Your task to perform on an android device: Open eBay Image 0: 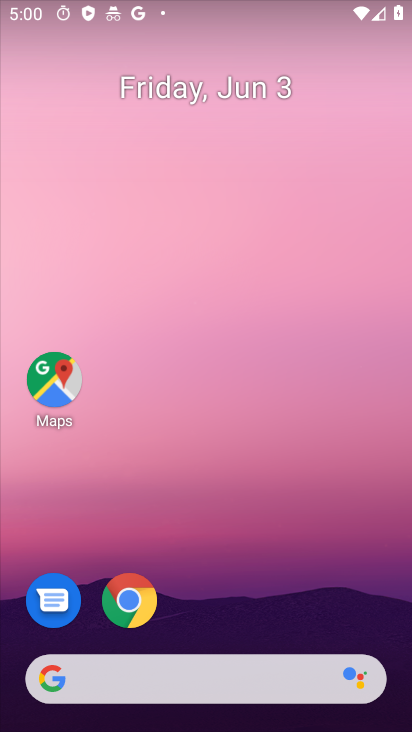
Step 0: click (133, 606)
Your task to perform on an android device: Open eBay Image 1: 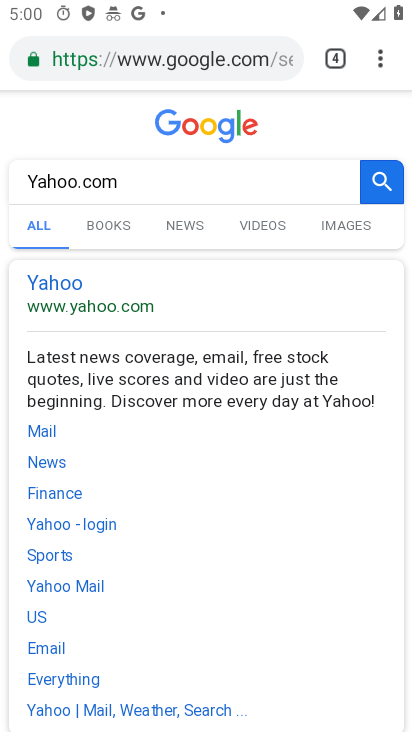
Step 1: click (295, 51)
Your task to perform on an android device: Open eBay Image 2: 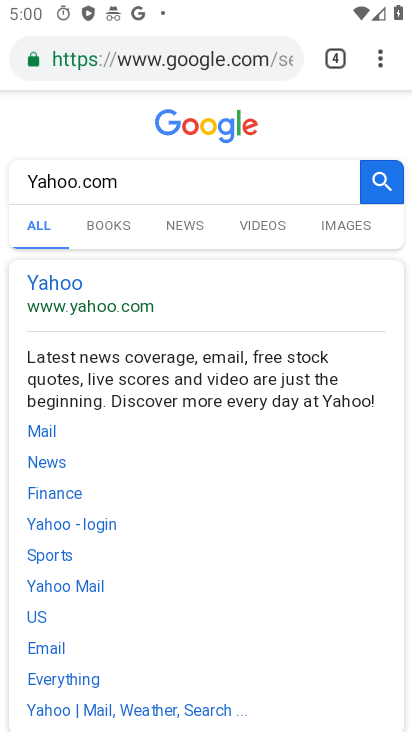
Step 2: click (287, 58)
Your task to perform on an android device: Open eBay Image 3: 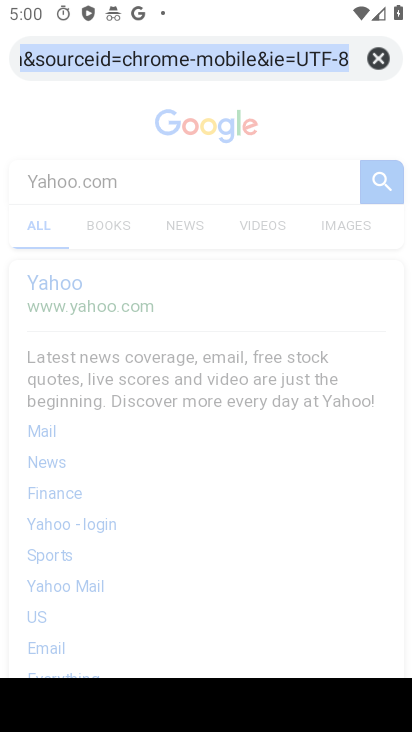
Step 3: click (379, 58)
Your task to perform on an android device: Open eBay Image 4: 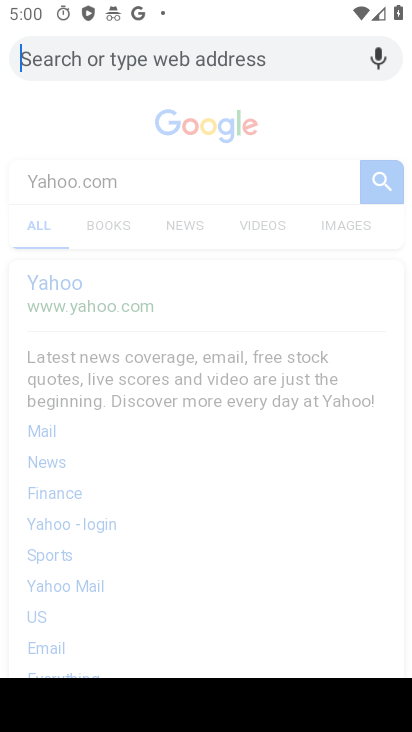
Step 4: type "eBay"
Your task to perform on an android device: Open eBay Image 5: 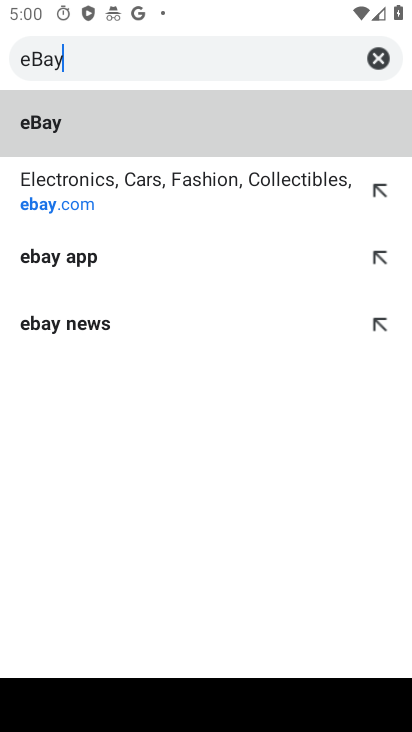
Step 5: click (60, 129)
Your task to perform on an android device: Open eBay Image 6: 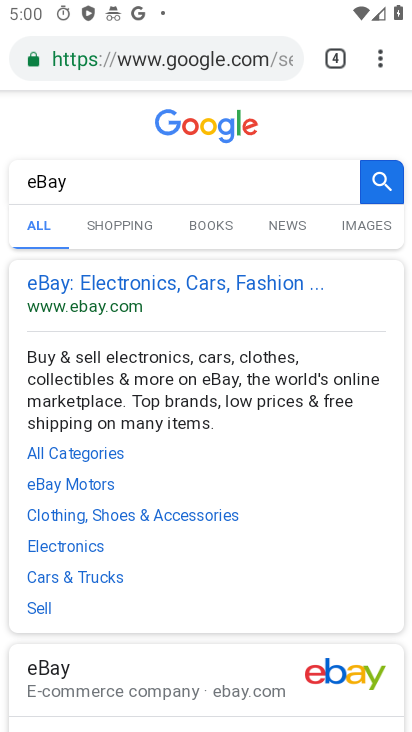
Step 6: task complete